Your task to perform on an android device: turn off picture-in-picture Image 0: 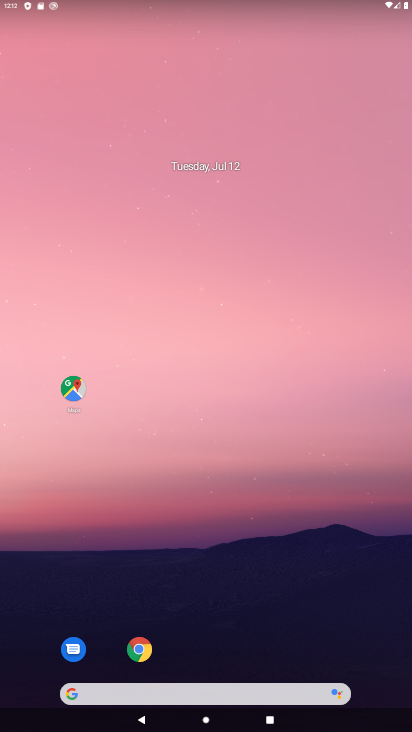
Step 0: drag from (266, 656) to (260, 110)
Your task to perform on an android device: turn off picture-in-picture Image 1: 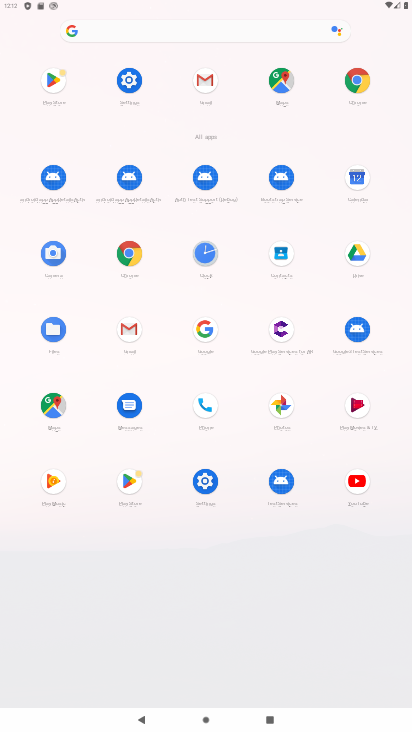
Step 1: click (139, 100)
Your task to perform on an android device: turn off picture-in-picture Image 2: 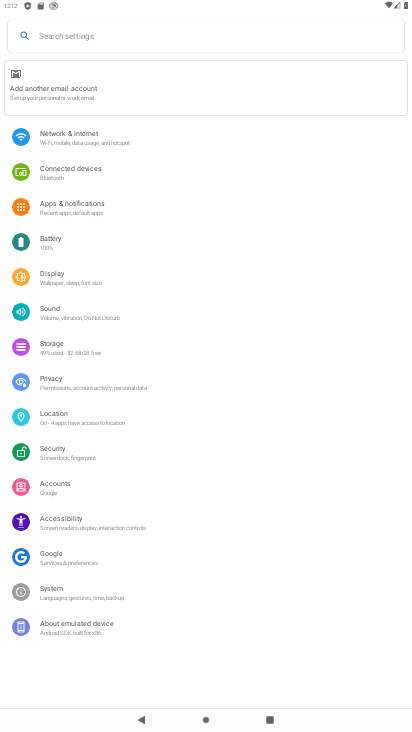
Step 2: click (131, 204)
Your task to perform on an android device: turn off picture-in-picture Image 3: 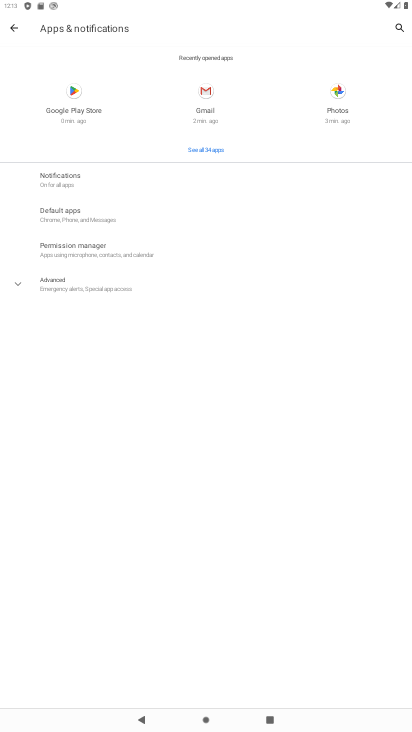
Step 3: click (99, 274)
Your task to perform on an android device: turn off picture-in-picture Image 4: 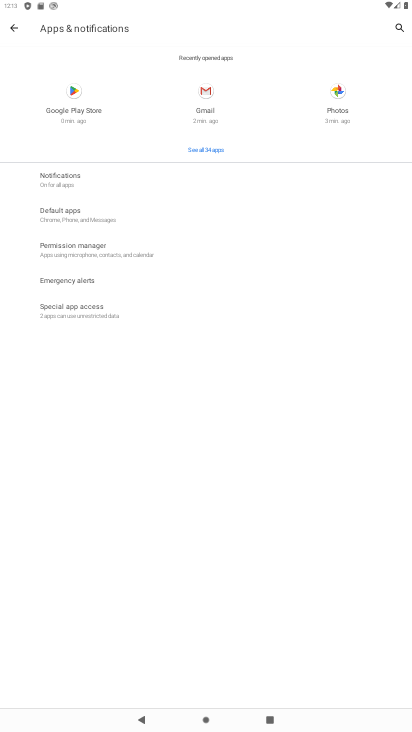
Step 4: click (43, 179)
Your task to perform on an android device: turn off picture-in-picture Image 5: 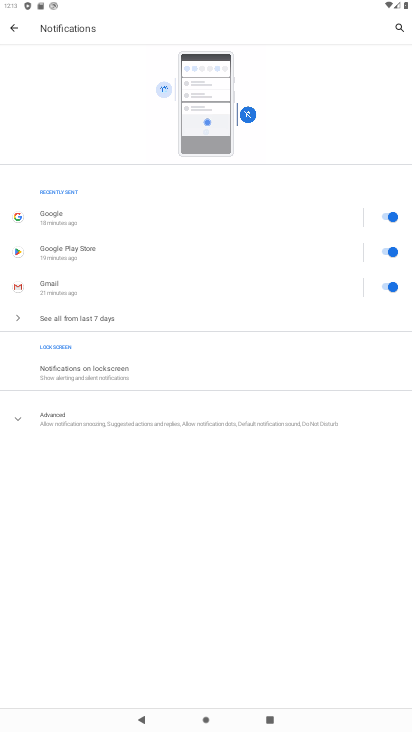
Step 5: click (134, 430)
Your task to perform on an android device: turn off picture-in-picture Image 6: 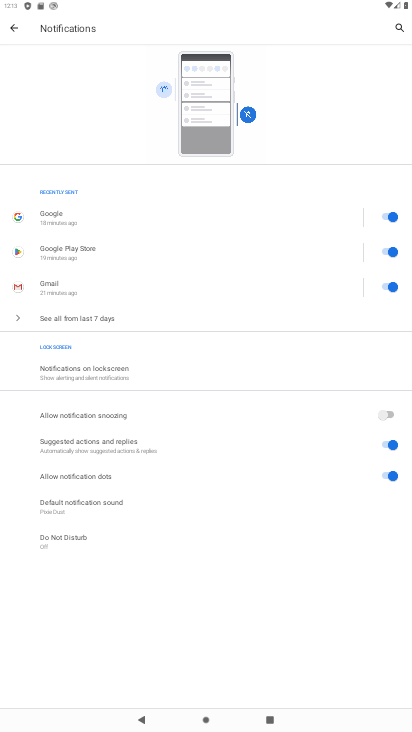
Step 6: task complete